Your task to perform on an android device: Go to Google maps Image 0: 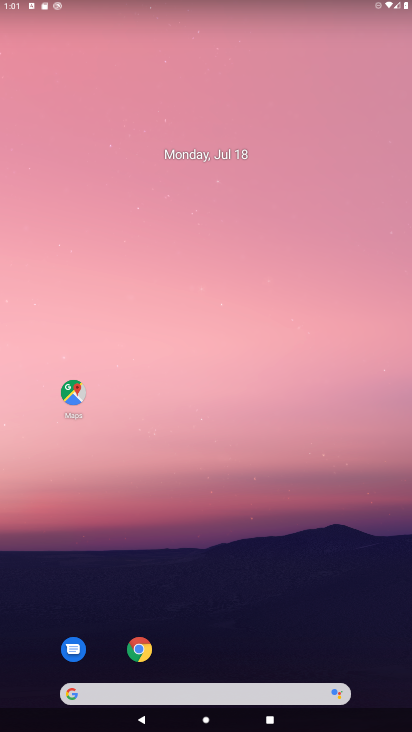
Step 0: click (75, 390)
Your task to perform on an android device: Go to Google maps Image 1: 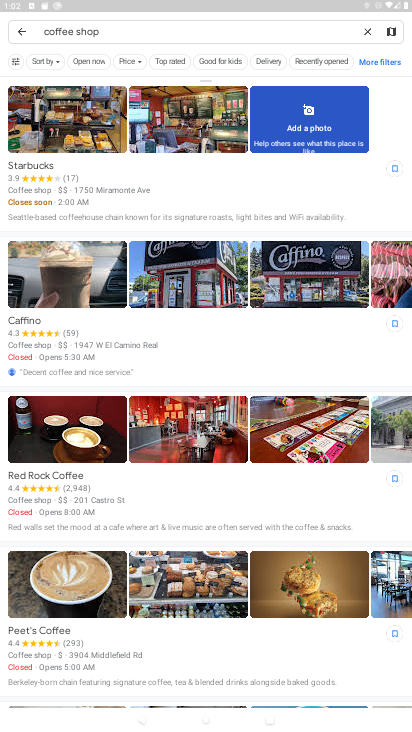
Step 1: click (364, 30)
Your task to perform on an android device: Go to Google maps Image 2: 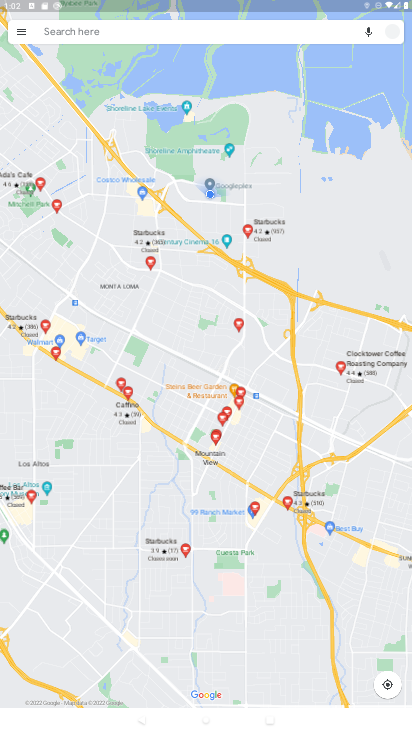
Step 2: task complete